Your task to perform on an android device: see creations saved in the google photos Image 0: 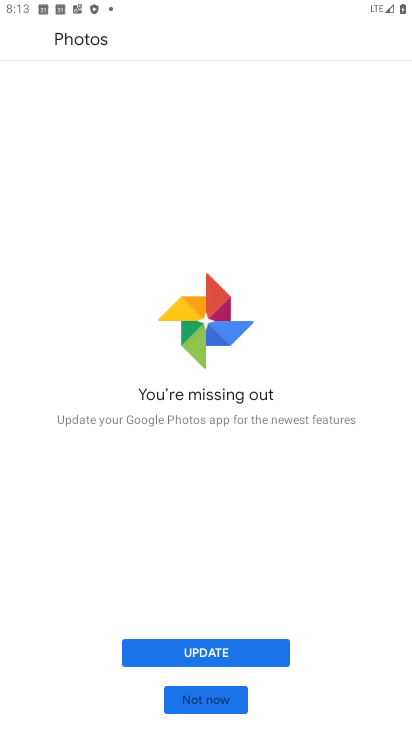
Step 0: click (181, 639)
Your task to perform on an android device: see creations saved in the google photos Image 1: 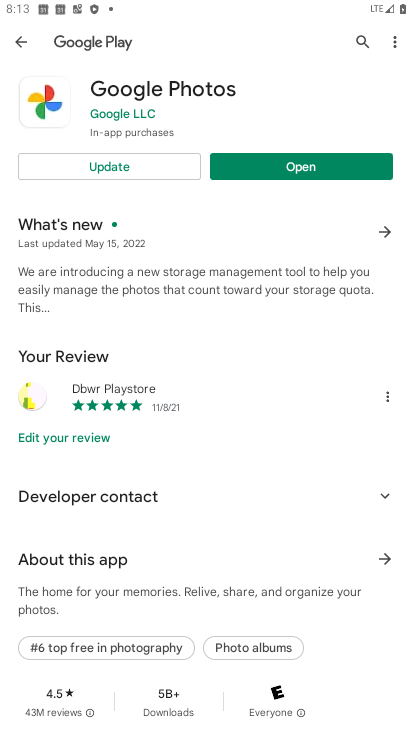
Step 1: click (146, 165)
Your task to perform on an android device: see creations saved in the google photos Image 2: 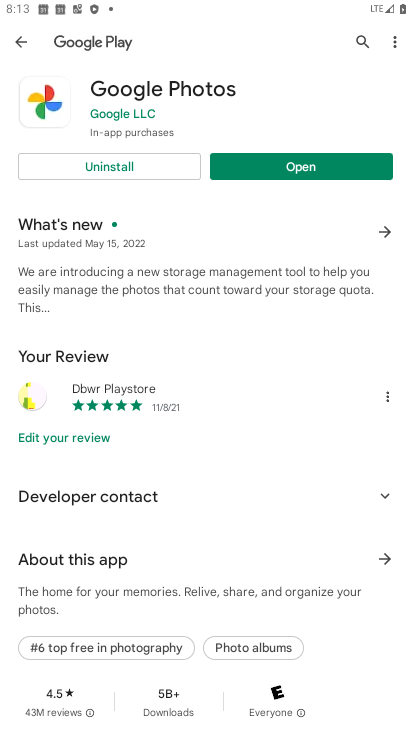
Step 2: click (279, 162)
Your task to perform on an android device: see creations saved in the google photos Image 3: 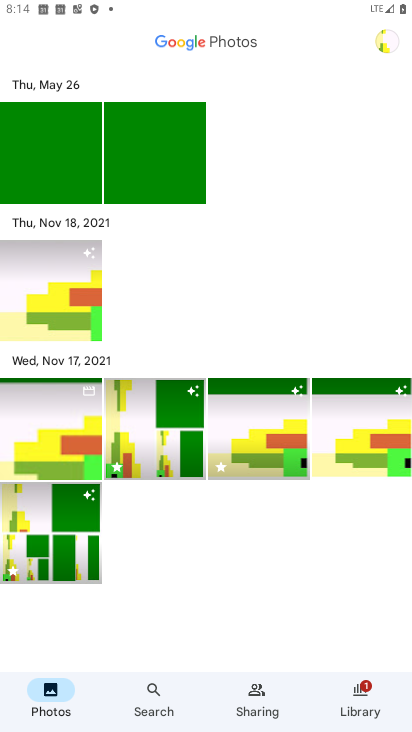
Step 3: click (150, 687)
Your task to perform on an android device: see creations saved in the google photos Image 4: 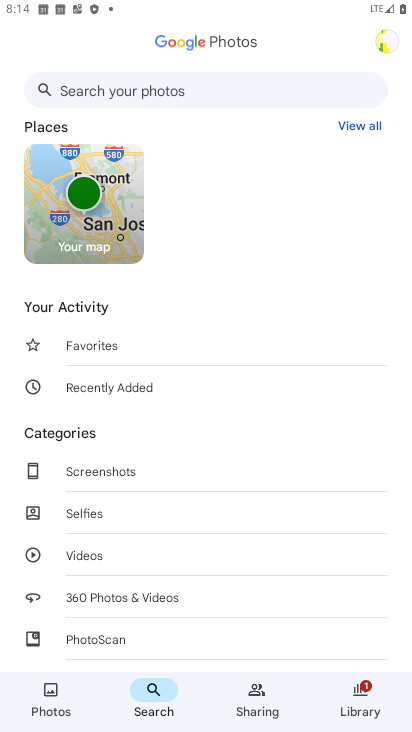
Step 4: drag from (162, 568) to (129, 442)
Your task to perform on an android device: see creations saved in the google photos Image 5: 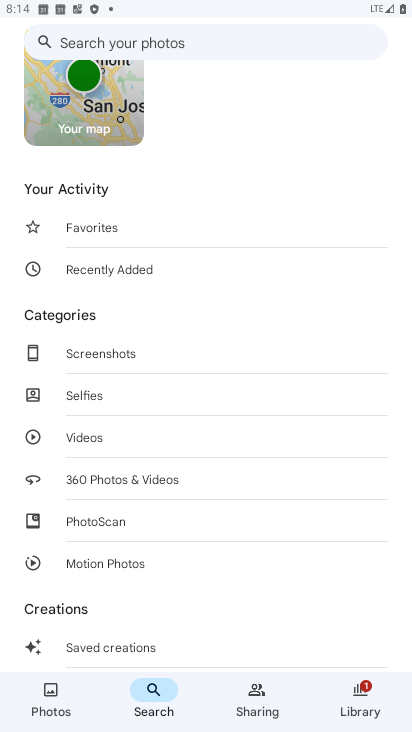
Step 5: drag from (161, 530) to (185, 446)
Your task to perform on an android device: see creations saved in the google photos Image 6: 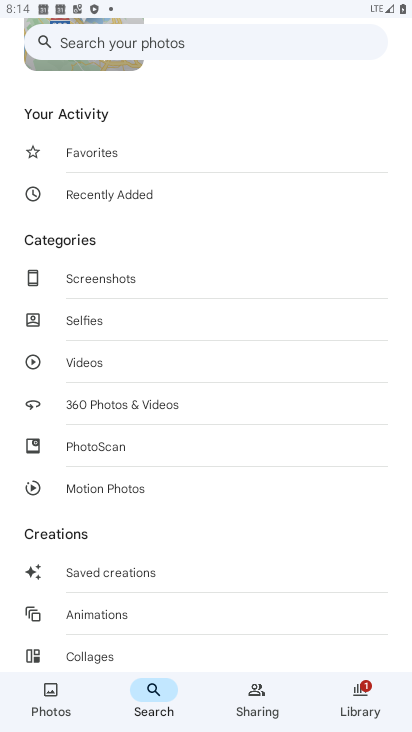
Step 6: click (150, 570)
Your task to perform on an android device: see creations saved in the google photos Image 7: 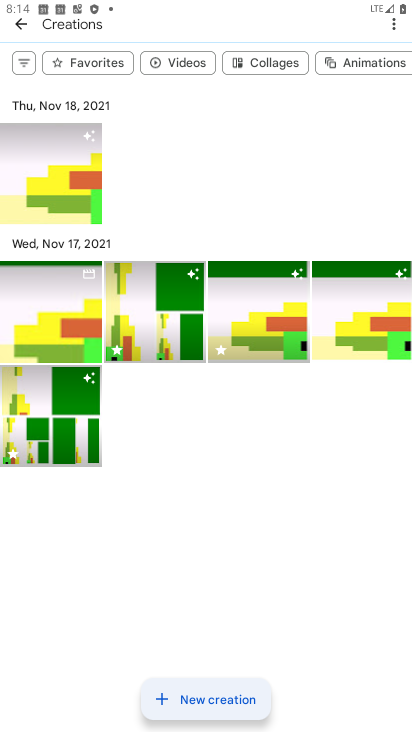
Step 7: task complete